Your task to perform on an android device: Go to Wikipedia Image 0: 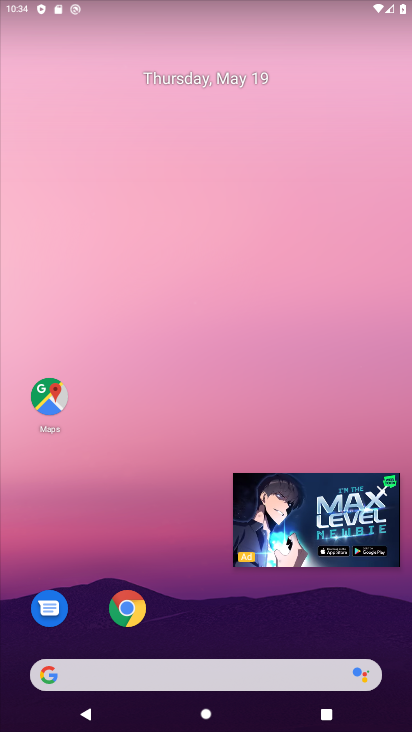
Step 0: click (355, 500)
Your task to perform on an android device: Go to Wikipedia Image 1: 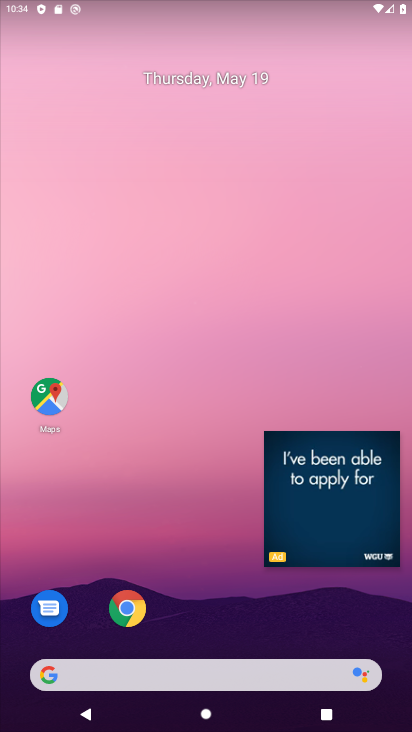
Step 1: click (328, 476)
Your task to perform on an android device: Go to Wikipedia Image 2: 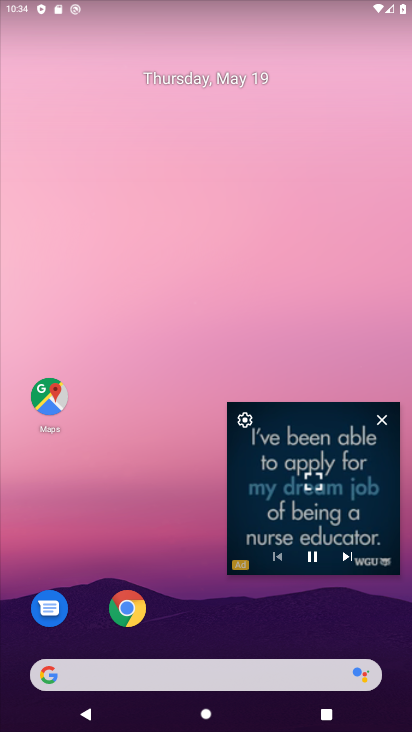
Step 2: click (379, 420)
Your task to perform on an android device: Go to Wikipedia Image 3: 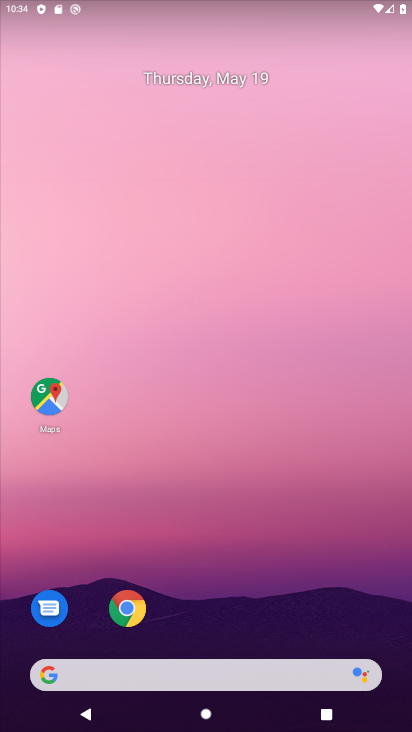
Step 3: click (120, 604)
Your task to perform on an android device: Go to Wikipedia Image 4: 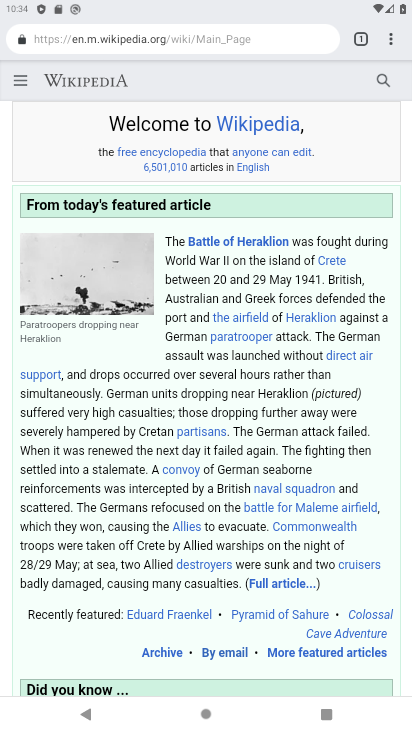
Step 4: task complete